Your task to perform on an android device: Open Google Image 0: 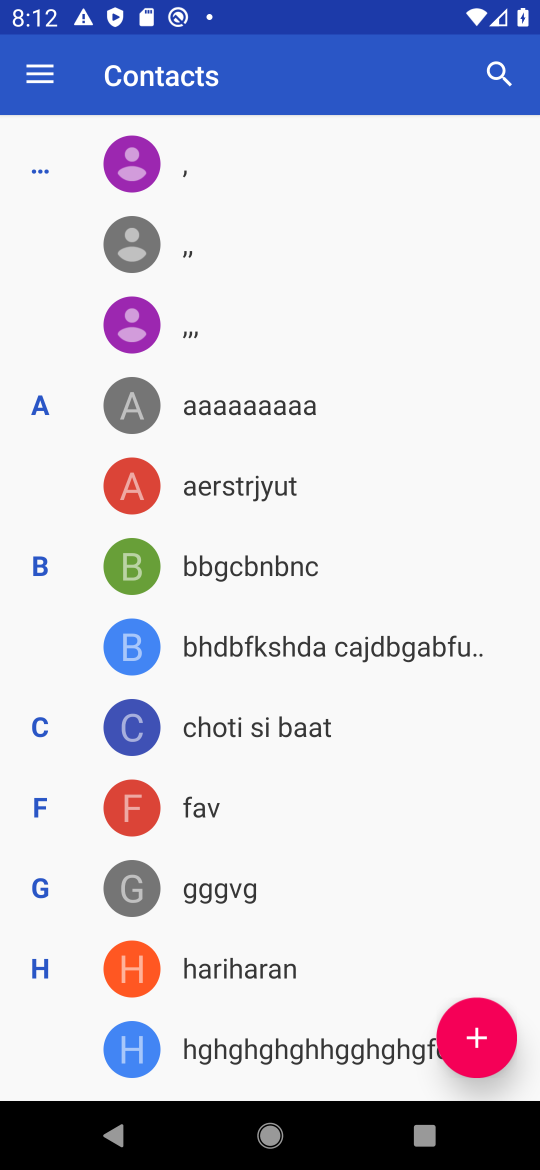
Step 0: press home button
Your task to perform on an android device: Open Google Image 1: 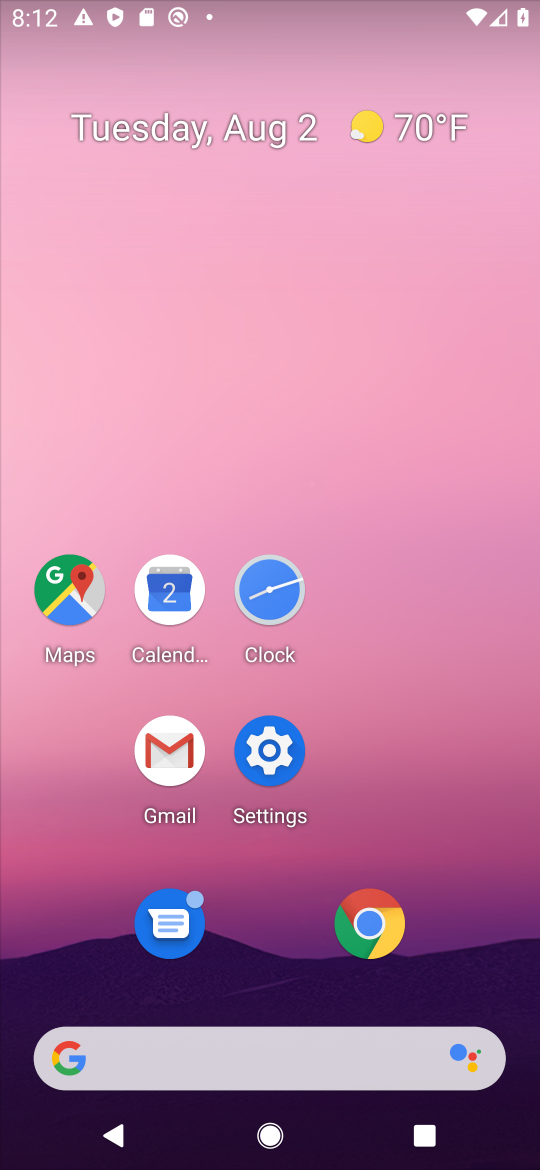
Step 1: drag from (518, 1079) to (411, 254)
Your task to perform on an android device: Open Google Image 2: 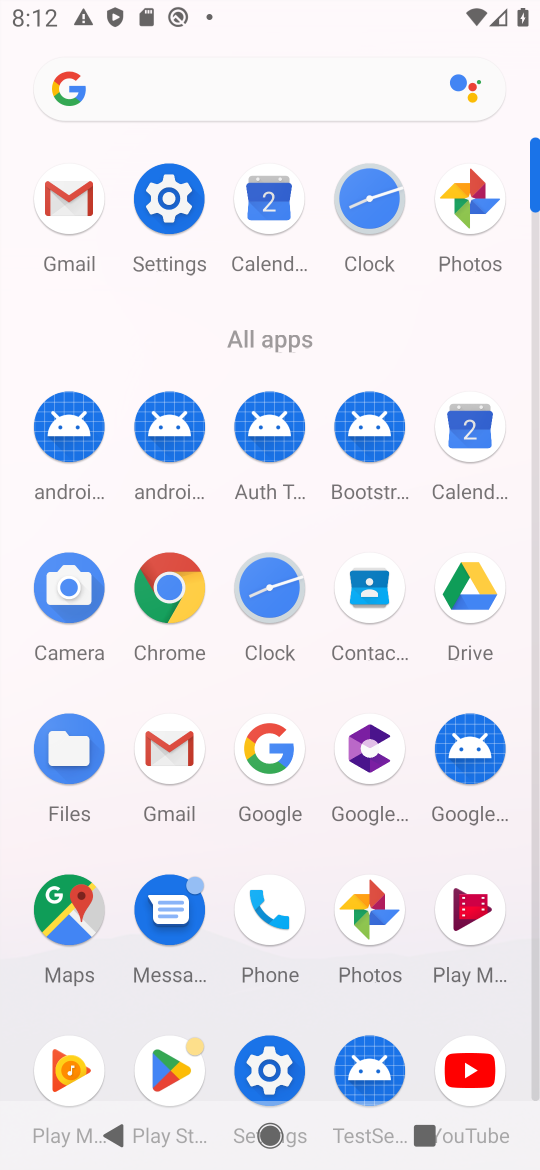
Step 2: click (278, 739)
Your task to perform on an android device: Open Google Image 3: 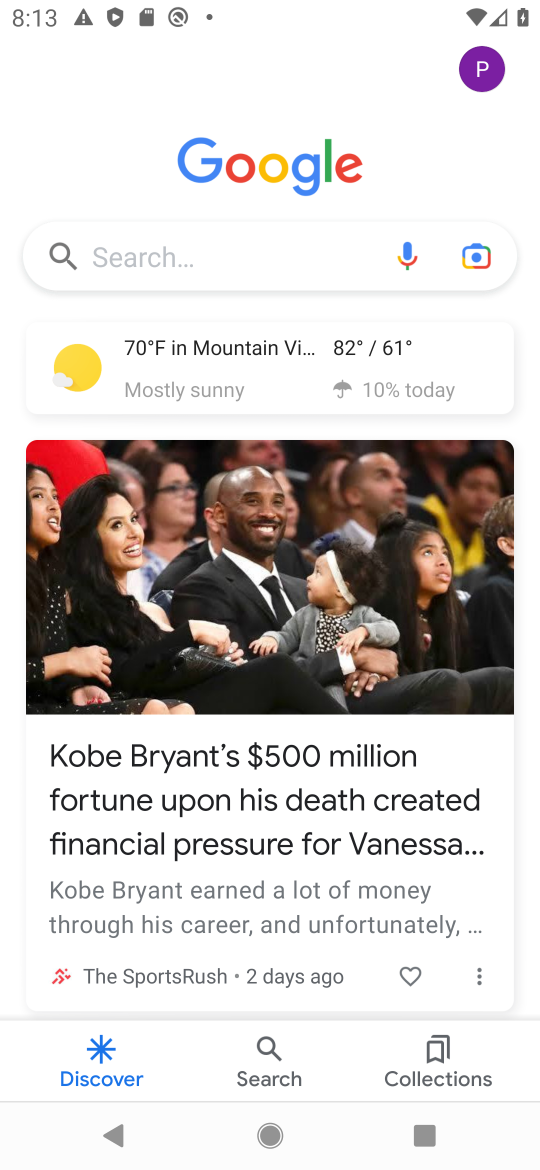
Step 3: task complete